Your task to perform on an android device: Open wifi settings Image 0: 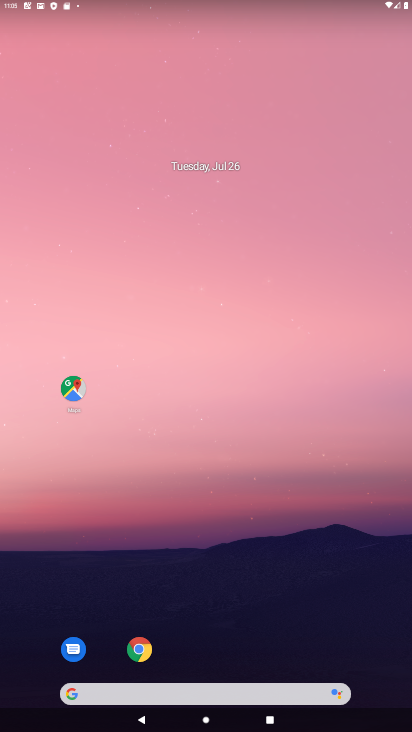
Step 0: drag from (298, 655) to (145, 102)
Your task to perform on an android device: Open wifi settings Image 1: 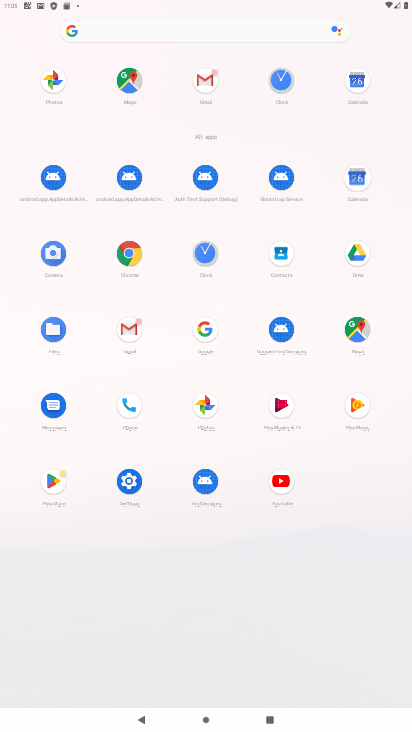
Step 1: drag from (222, 446) to (236, 19)
Your task to perform on an android device: Open wifi settings Image 2: 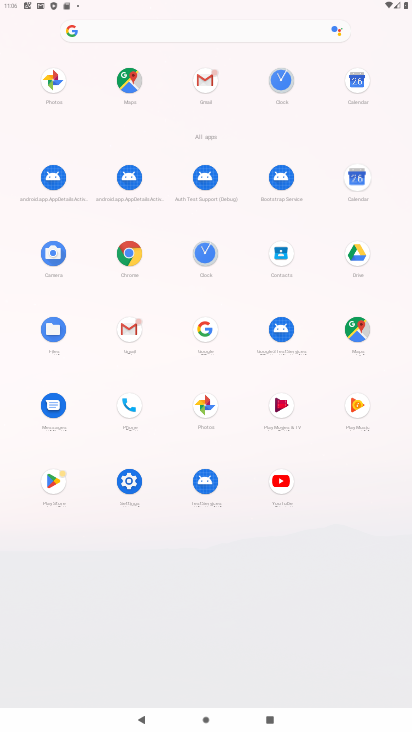
Step 2: click (352, 77)
Your task to perform on an android device: Open wifi settings Image 3: 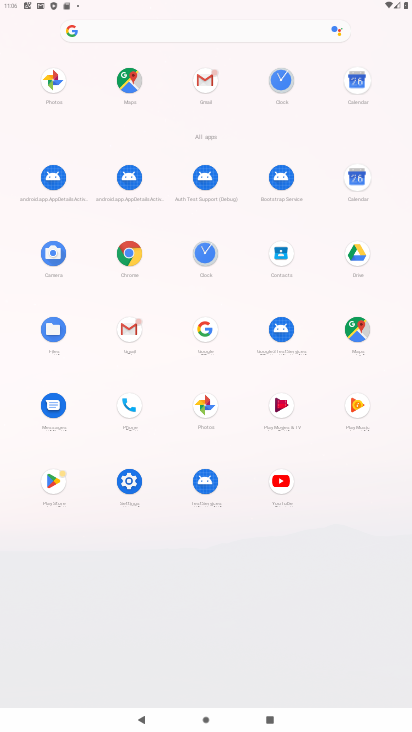
Step 3: click (352, 77)
Your task to perform on an android device: Open wifi settings Image 4: 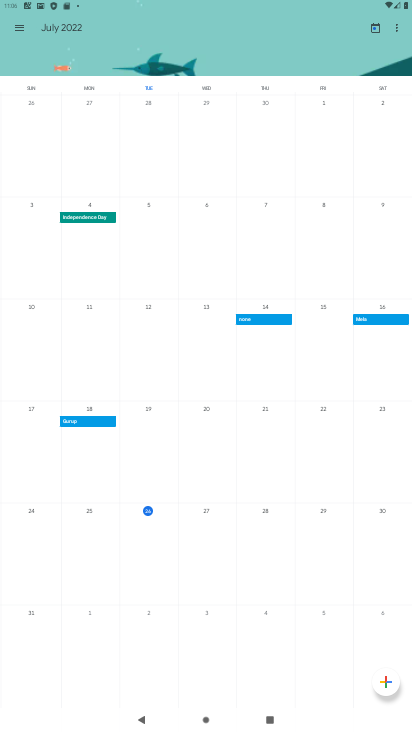
Step 4: click (355, 78)
Your task to perform on an android device: Open wifi settings Image 5: 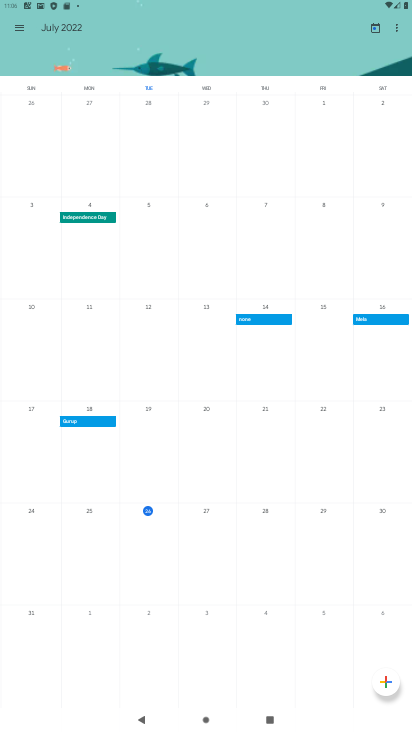
Step 5: press back button
Your task to perform on an android device: Open wifi settings Image 6: 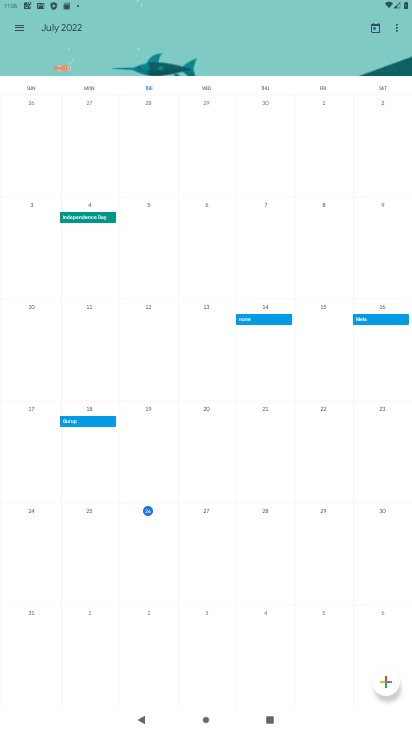
Step 6: press back button
Your task to perform on an android device: Open wifi settings Image 7: 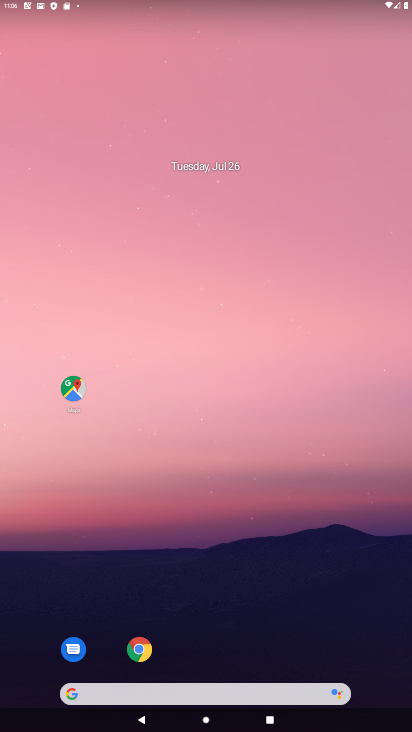
Step 7: drag from (215, 460) to (184, 221)
Your task to perform on an android device: Open wifi settings Image 8: 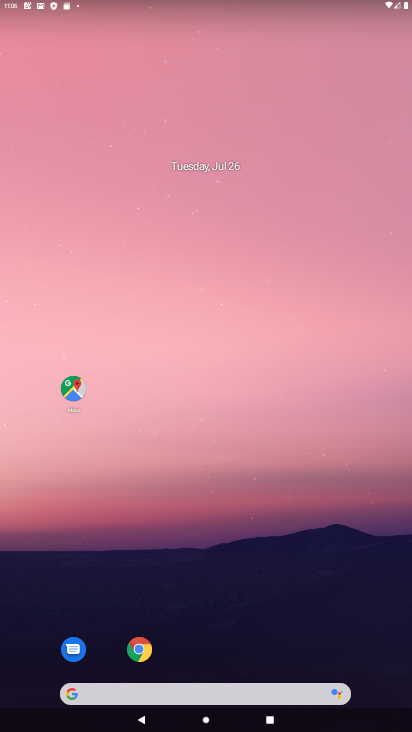
Step 8: drag from (231, 423) to (231, 271)
Your task to perform on an android device: Open wifi settings Image 9: 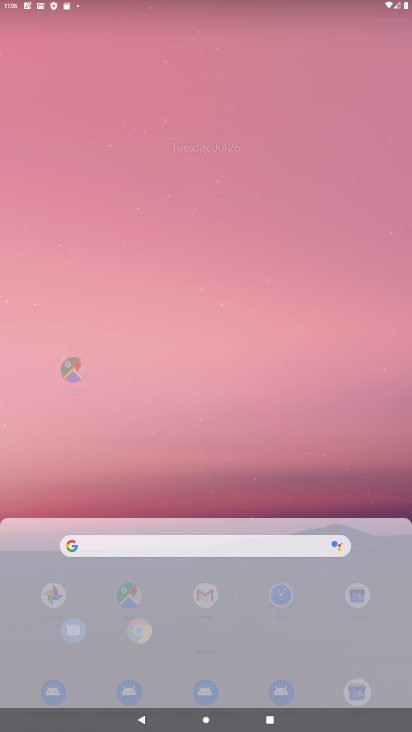
Step 9: drag from (253, 424) to (227, 169)
Your task to perform on an android device: Open wifi settings Image 10: 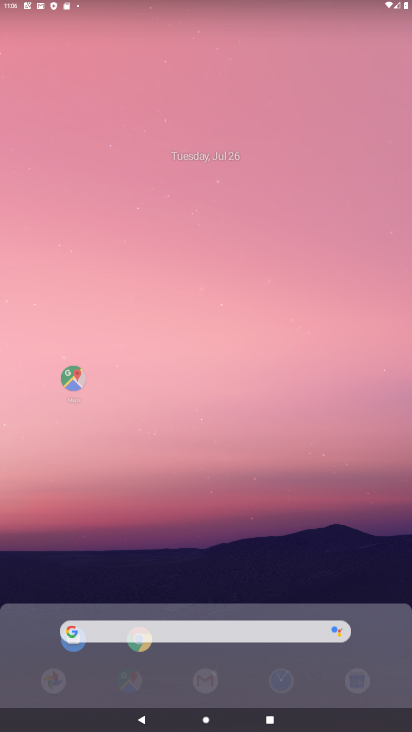
Step 10: click (253, 94)
Your task to perform on an android device: Open wifi settings Image 11: 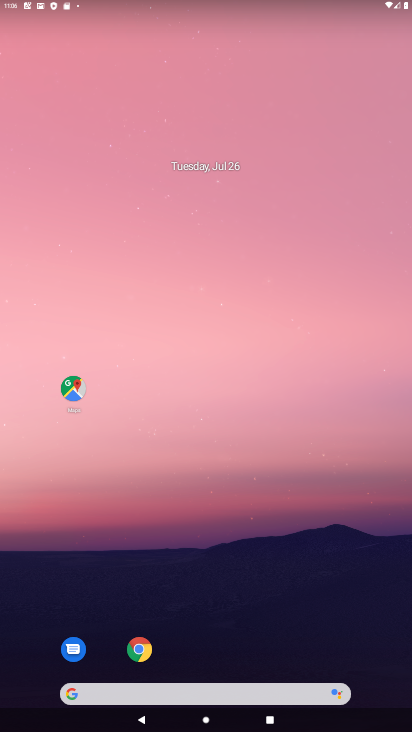
Step 11: drag from (252, 370) to (214, 12)
Your task to perform on an android device: Open wifi settings Image 12: 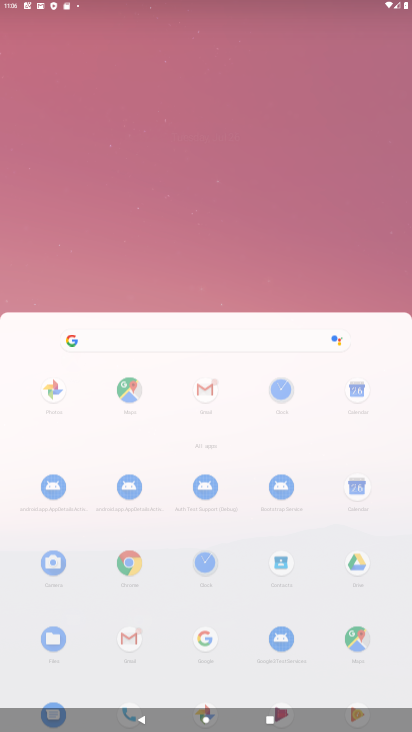
Step 12: drag from (213, 441) to (213, 99)
Your task to perform on an android device: Open wifi settings Image 13: 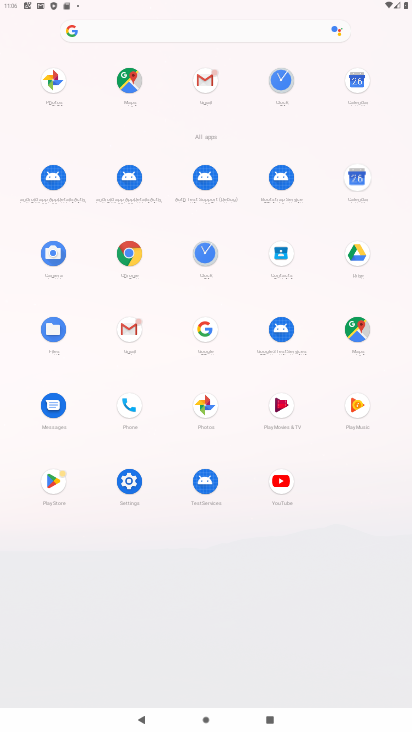
Step 13: click (133, 477)
Your task to perform on an android device: Open wifi settings Image 14: 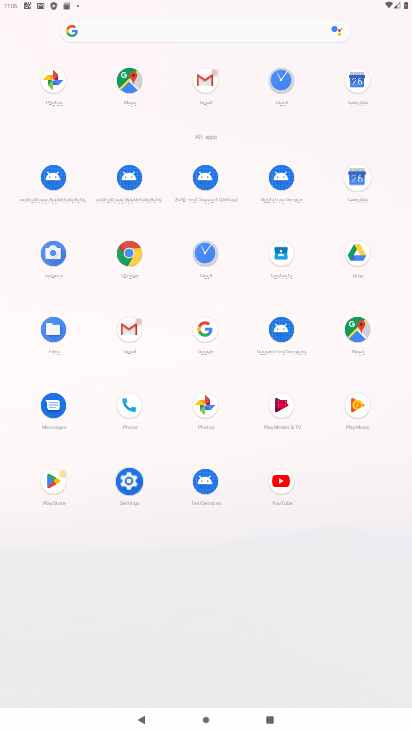
Step 14: click (132, 476)
Your task to perform on an android device: Open wifi settings Image 15: 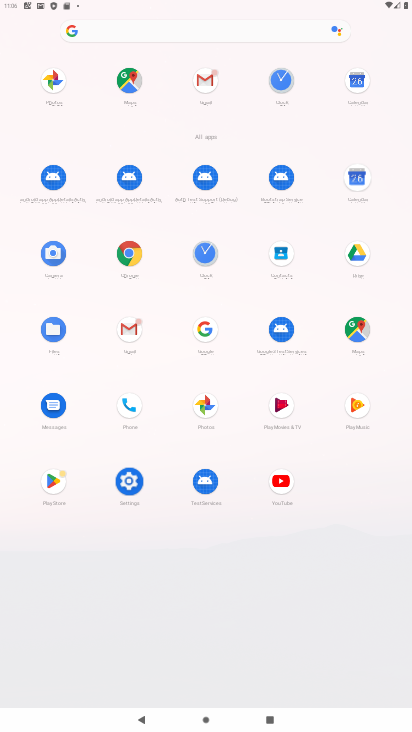
Step 15: click (136, 476)
Your task to perform on an android device: Open wifi settings Image 16: 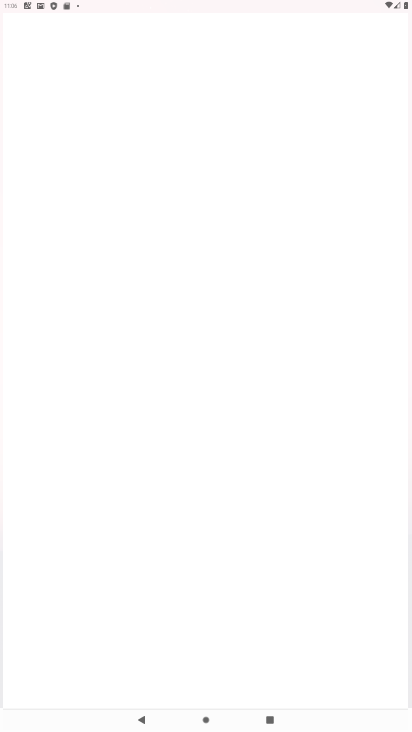
Step 16: click (136, 476)
Your task to perform on an android device: Open wifi settings Image 17: 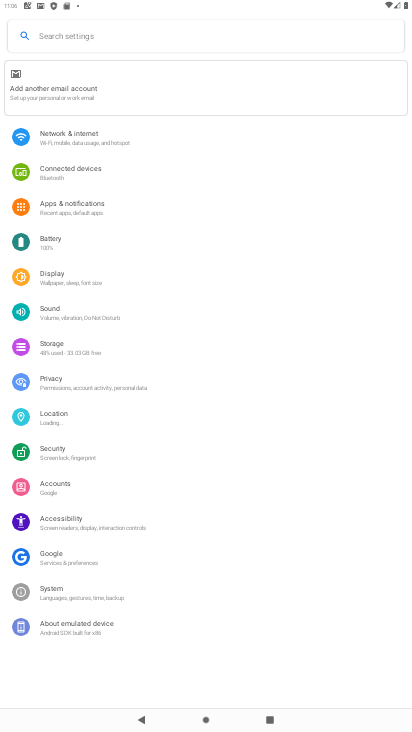
Step 17: click (58, 141)
Your task to perform on an android device: Open wifi settings Image 18: 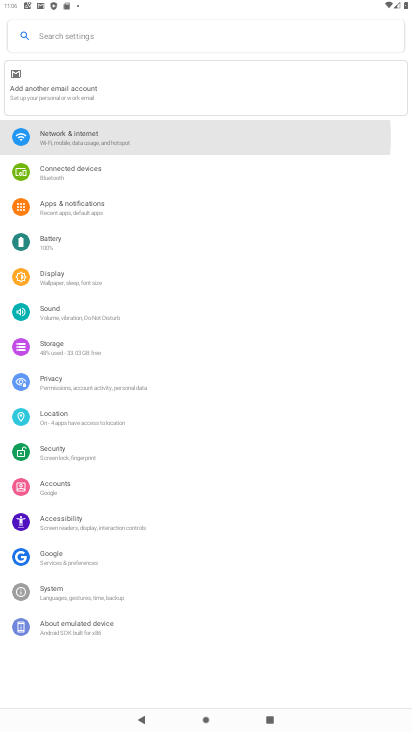
Step 18: click (58, 141)
Your task to perform on an android device: Open wifi settings Image 19: 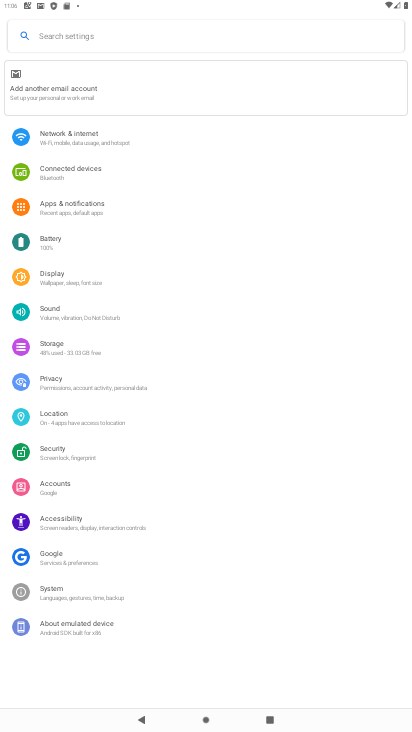
Step 19: click (59, 140)
Your task to perform on an android device: Open wifi settings Image 20: 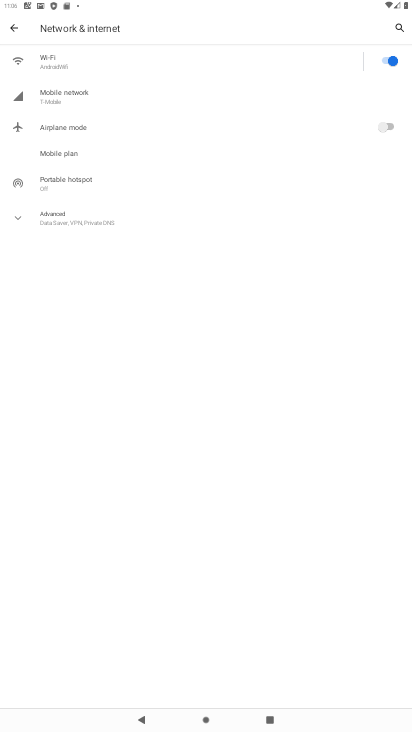
Step 20: task complete